Your task to perform on an android device: change alarm snooze length Image 0: 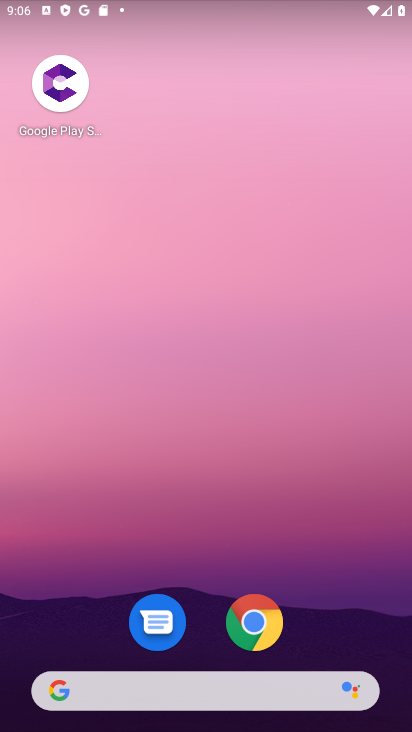
Step 0: drag from (302, 607) to (238, 44)
Your task to perform on an android device: change alarm snooze length Image 1: 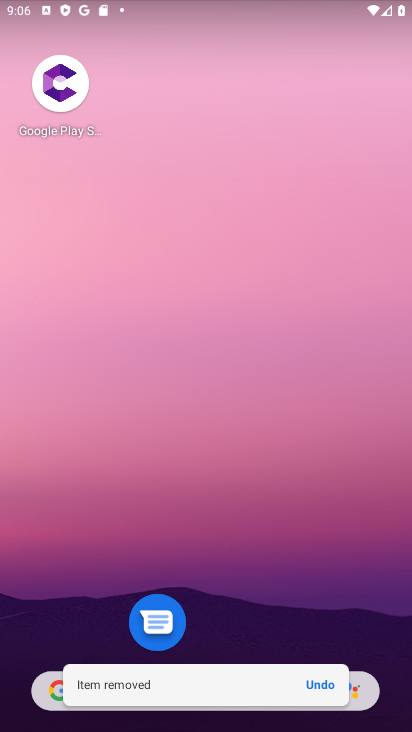
Step 1: drag from (348, 574) to (313, 47)
Your task to perform on an android device: change alarm snooze length Image 2: 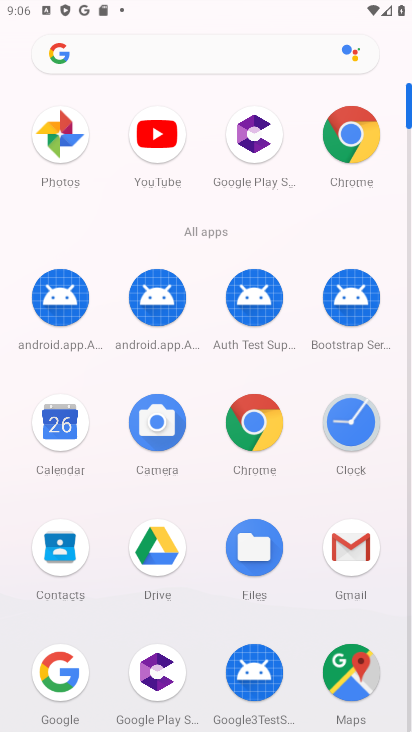
Step 2: click (368, 425)
Your task to perform on an android device: change alarm snooze length Image 3: 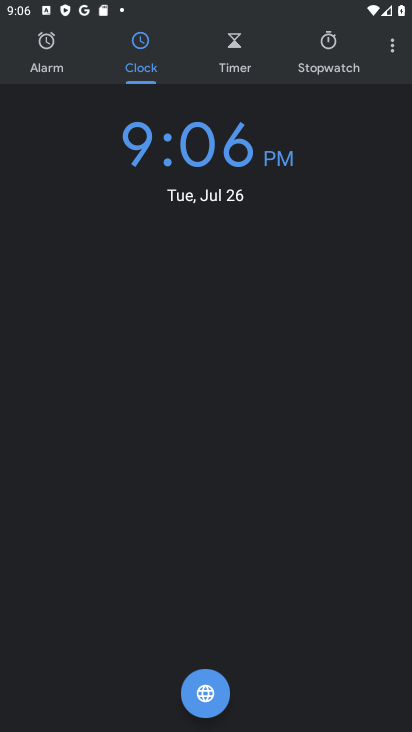
Step 3: click (398, 52)
Your task to perform on an android device: change alarm snooze length Image 4: 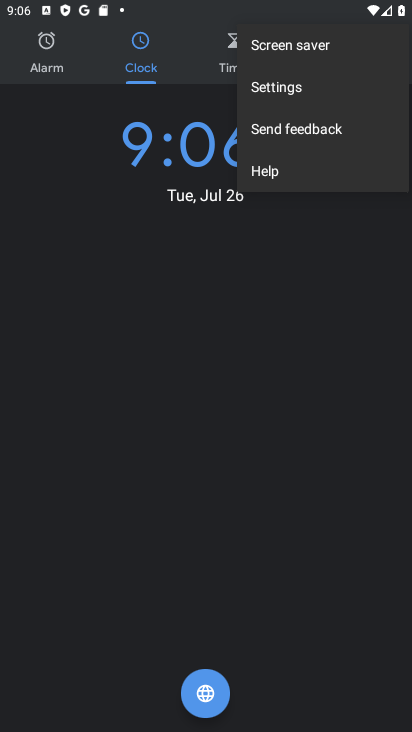
Step 4: click (289, 83)
Your task to perform on an android device: change alarm snooze length Image 5: 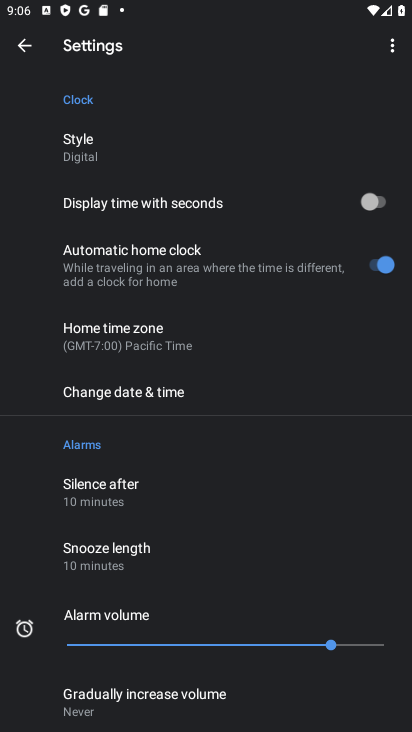
Step 5: click (125, 563)
Your task to perform on an android device: change alarm snooze length Image 6: 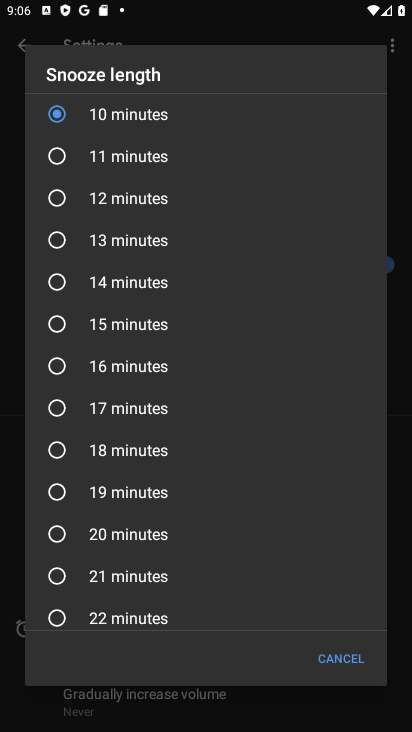
Step 6: click (114, 335)
Your task to perform on an android device: change alarm snooze length Image 7: 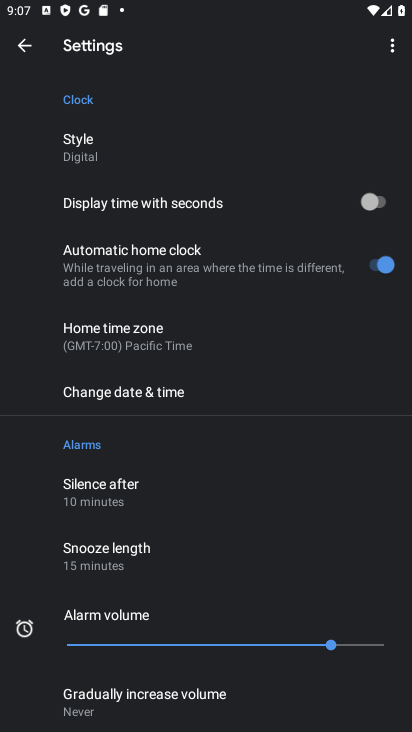
Step 7: task complete